Your task to perform on an android device: allow cookies in the chrome app Image 0: 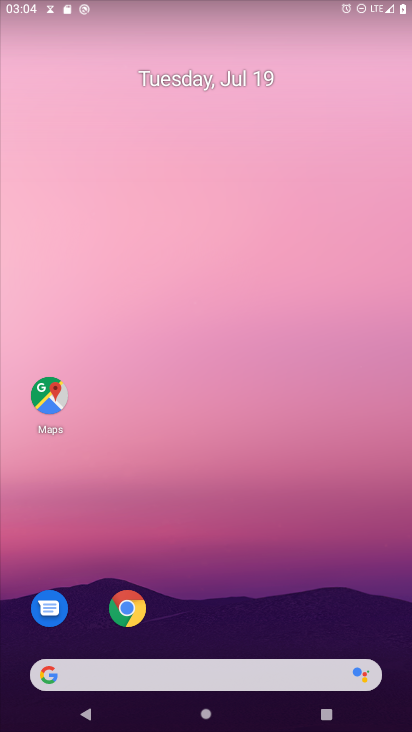
Step 0: drag from (296, 660) to (262, 12)
Your task to perform on an android device: allow cookies in the chrome app Image 1: 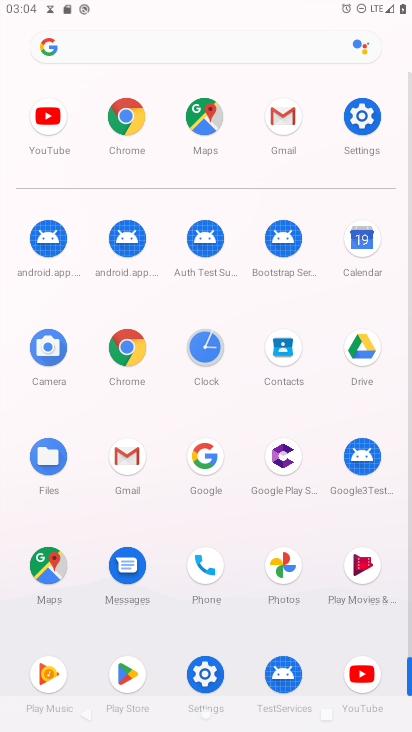
Step 1: click (132, 358)
Your task to perform on an android device: allow cookies in the chrome app Image 2: 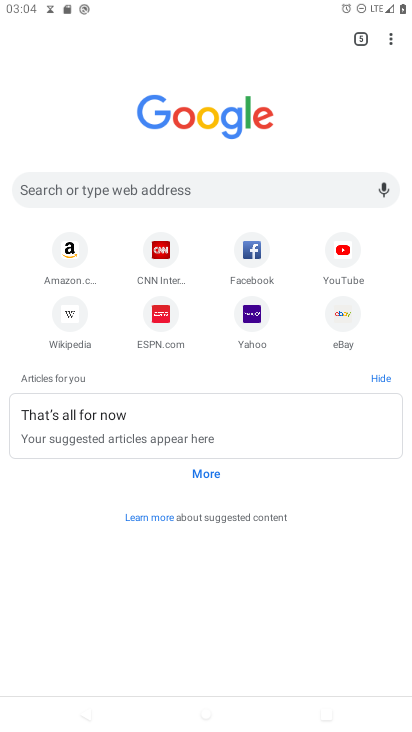
Step 2: drag from (385, 40) to (312, 314)
Your task to perform on an android device: allow cookies in the chrome app Image 3: 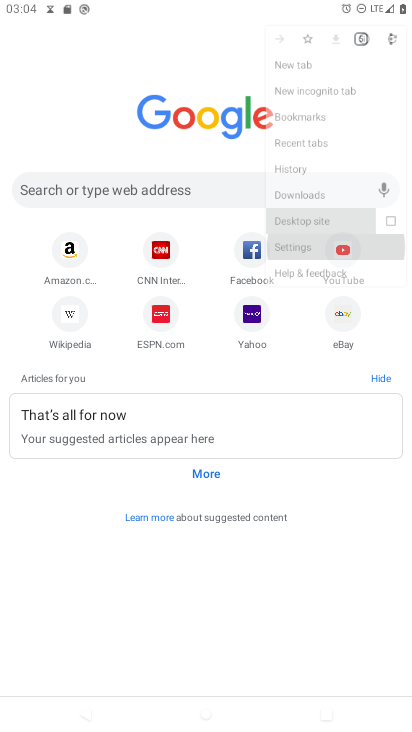
Step 3: click (290, 323)
Your task to perform on an android device: allow cookies in the chrome app Image 4: 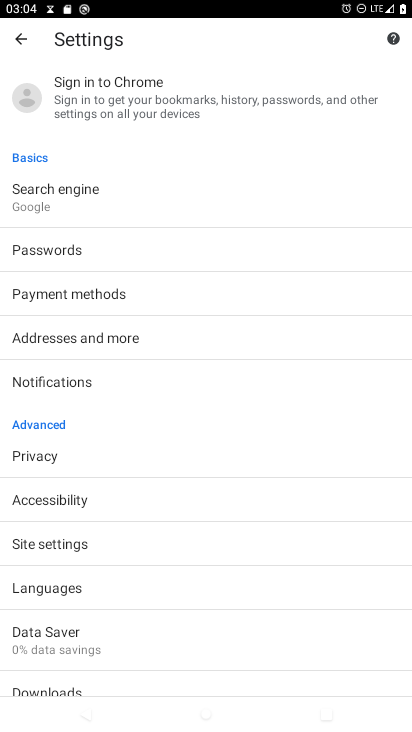
Step 4: drag from (174, 624) to (202, 479)
Your task to perform on an android device: allow cookies in the chrome app Image 5: 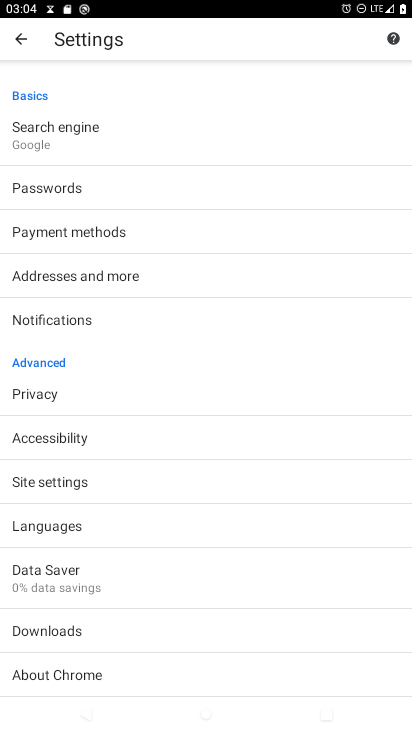
Step 5: click (85, 487)
Your task to perform on an android device: allow cookies in the chrome app Image 6: 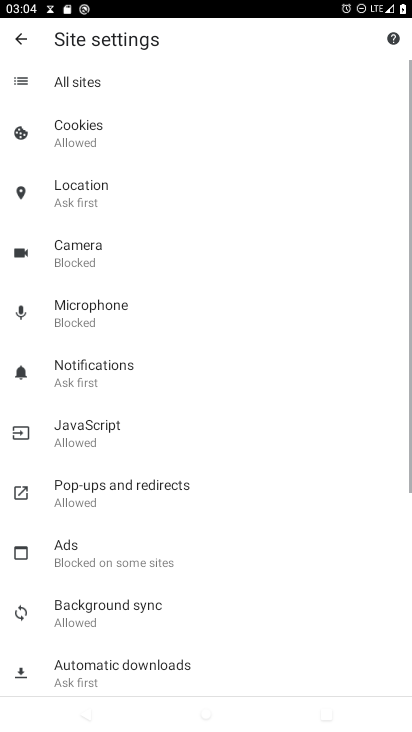
Step 6: click (86, 134)
Your task to perform on an android device: allow cookies in the chrome app Image 7: 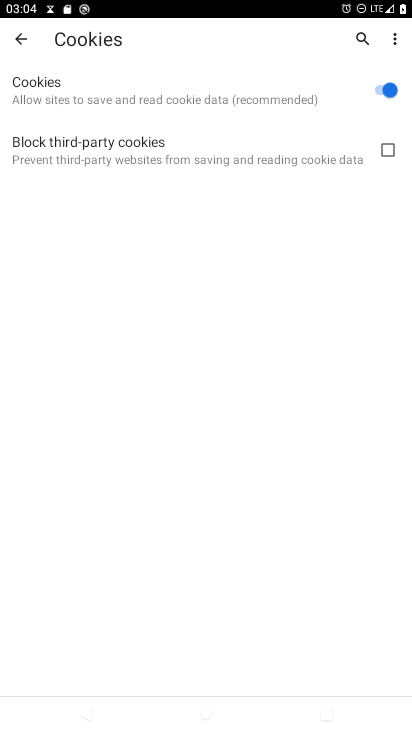
Step 7: task complete